Your task to perform on an android device: open app "Facebook Messenger" (install if not already installed) and go to login screen Image 0: 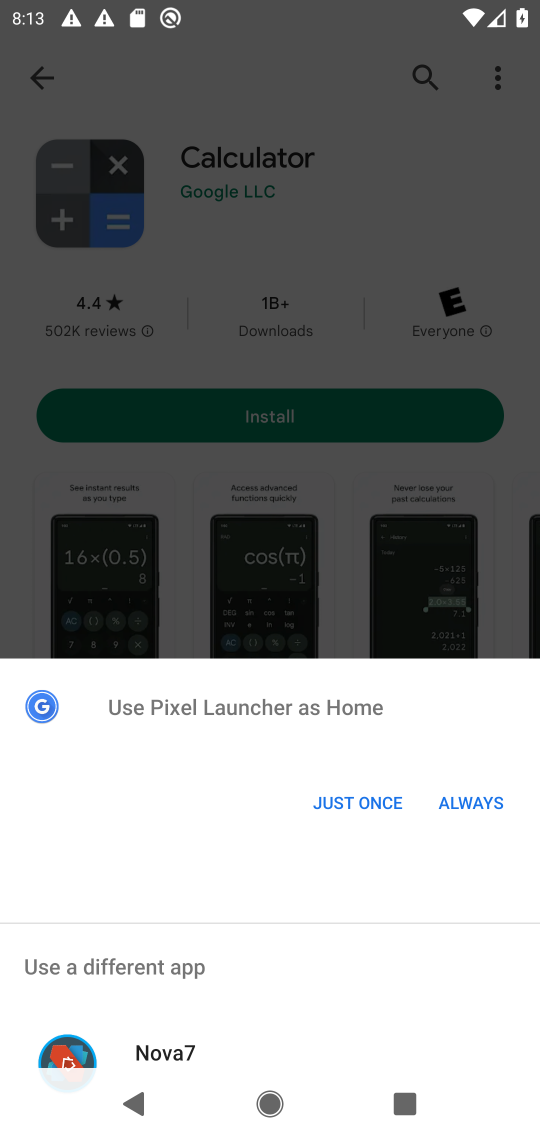
Step 0: click (354, 835)
Your task to perform on an android device: open app "Facebook Messenger" (install if not already installed) and go to login screen Image 1: 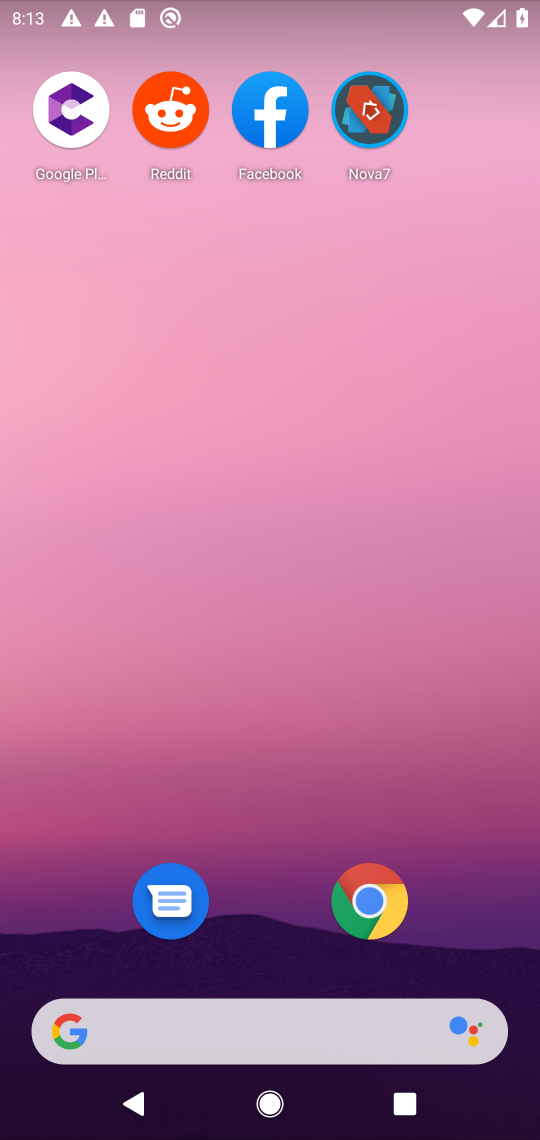
Step 1: drag from (281, 964) to (463, 47)
Your task to perform on an android device: open app "Facebook Messenger" (install if not already installed) and go to login screen Image 2: 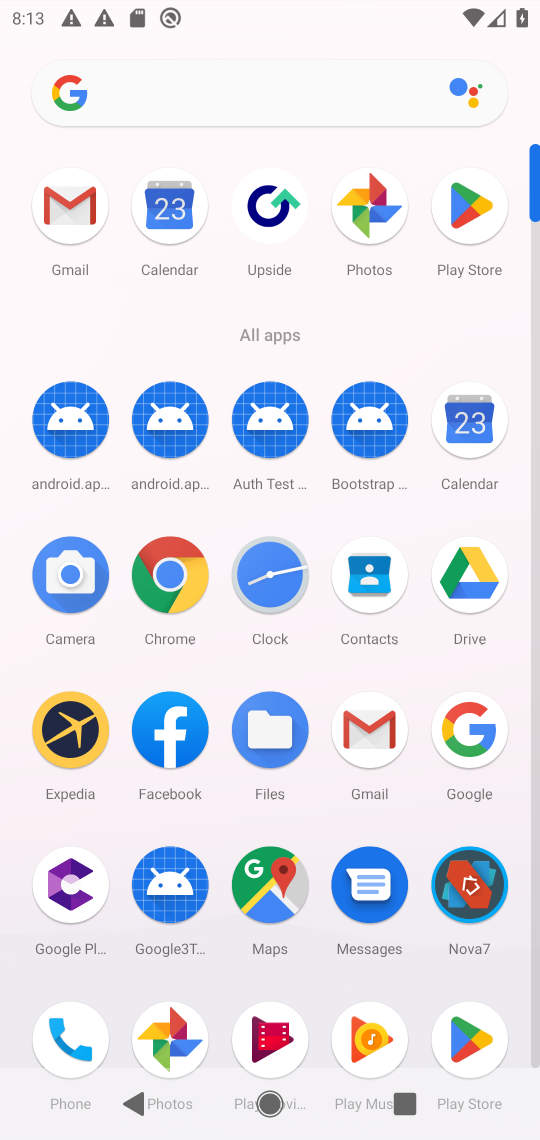
Step 2: click (497, 238)
Your task to perform on an android device: open app "Facebook Messenger" (install if not already installed) and go to login screen Image 3: 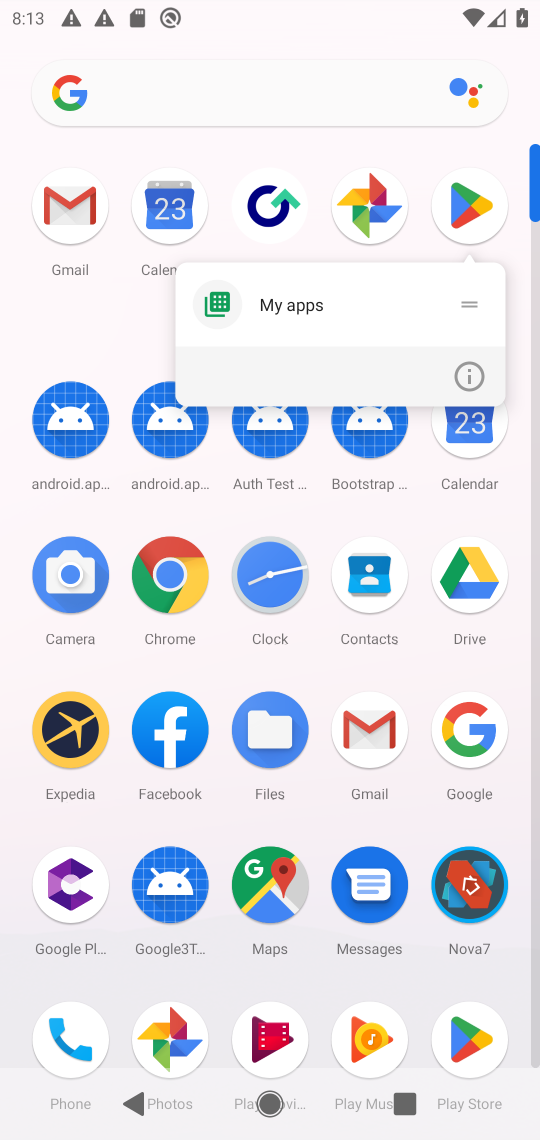
Step 3: click (494, 234)
Your task to perform on an android device: open app "Facebook Messenger" (install if not already installed) and go to login screen Image 4: 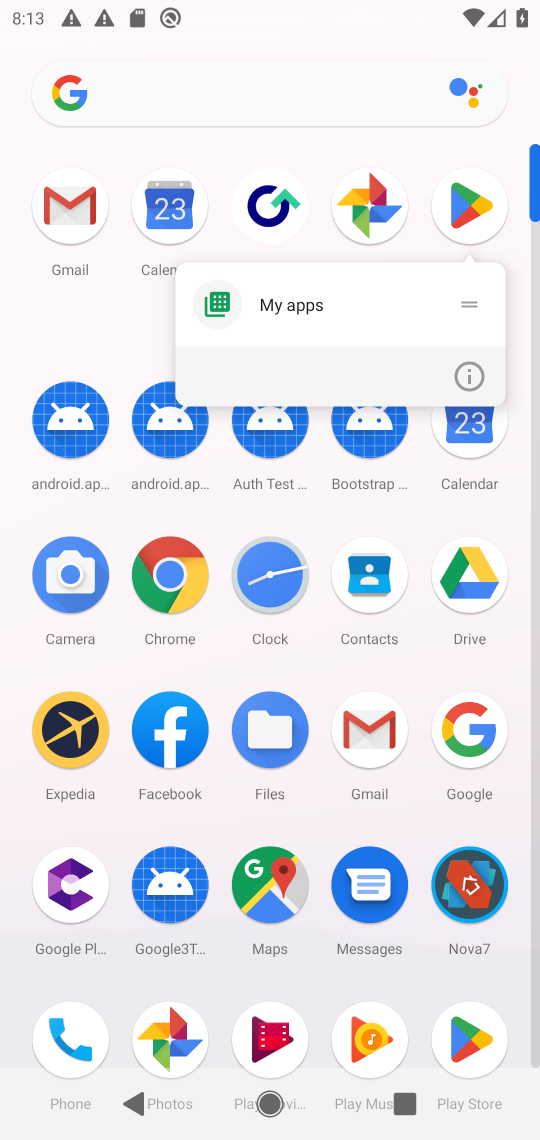
Step 4: click (422, 200)
Your task to perform on an android device: open app "Facebook Messenger" (install if not already installed) and go to login screen Image 5: 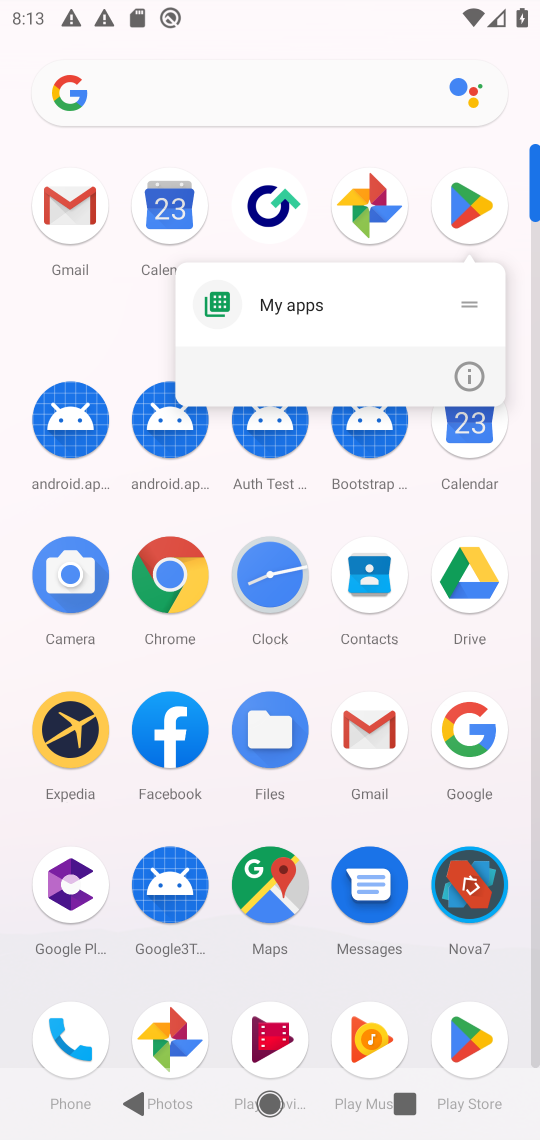
Step 5: click (464, 228)
Your task to perform on an android device: open app "Facebook Messenger" (install if not already installed) and go to login screen Image 6: 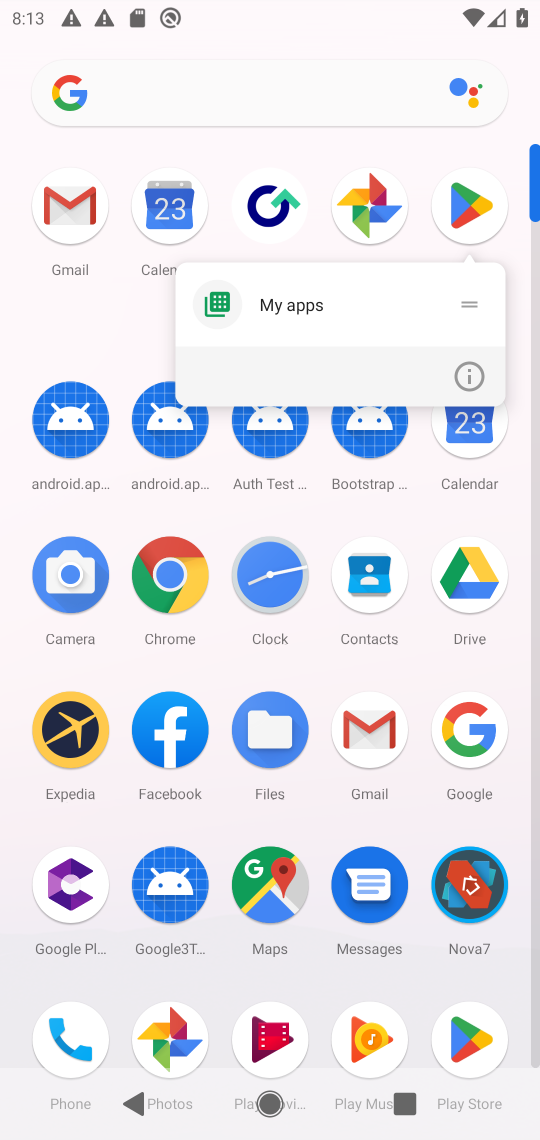
Step 6: click (461, 217)
Your task to perform on an android device: open app "Facebook Messenger" (install if not already installed) and go to login screen Image 7: 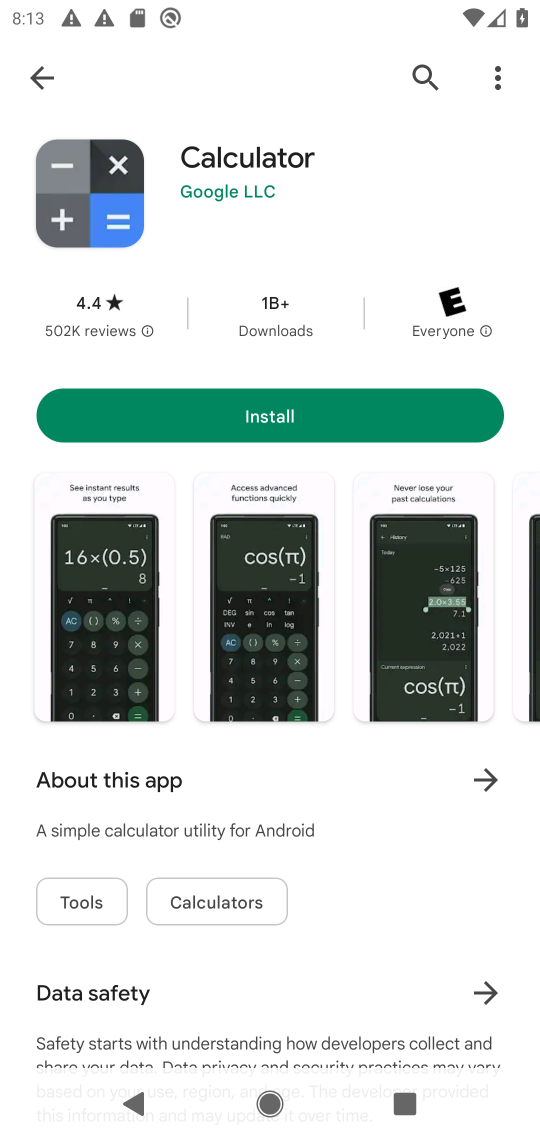
Step 7: press back button
Your task to perform on an android device: open app "Facebook Messenger" (install if not already installed) and go to login screen Image 8: 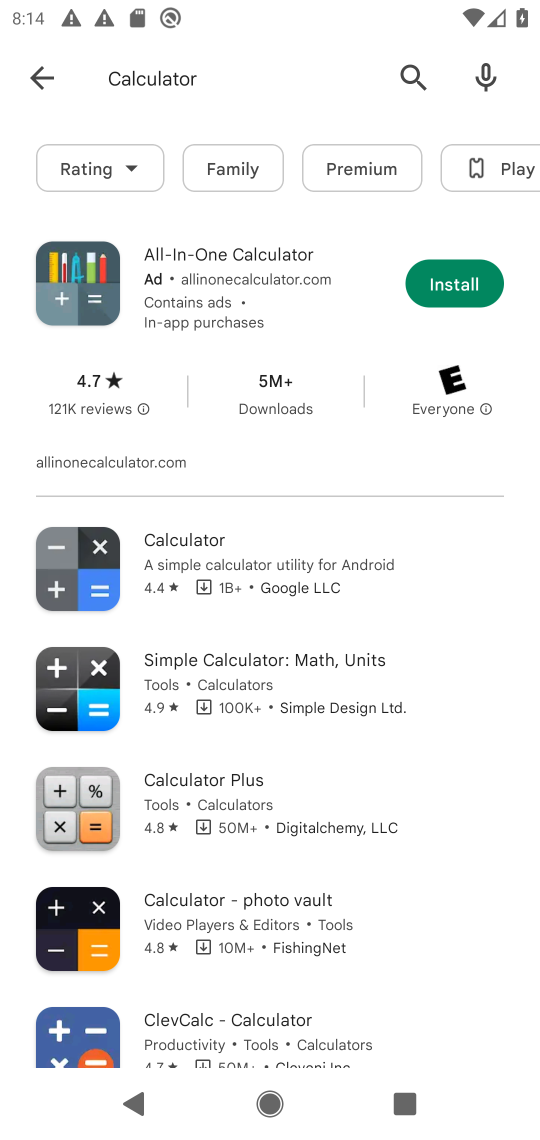
Step 8: press back button
Your task to perform on an android device: open app "Facebook Messenger" (install if not already installed) and go to login screen Image 9: 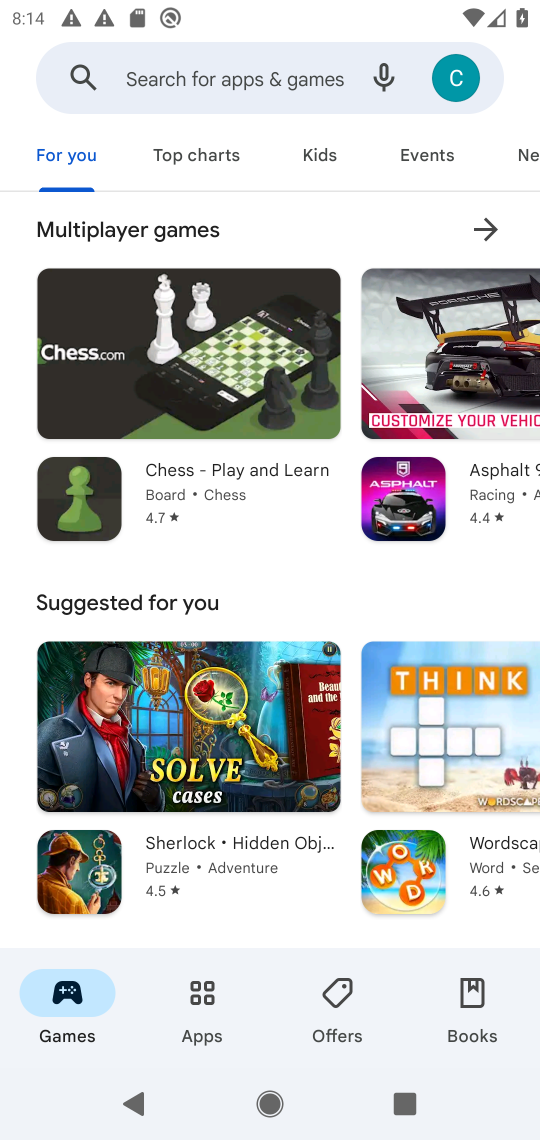
Step 9: click (247, 80)
Your task to perform on an android device: open app "Facebook Messenger" (install if not already installed) and go to login screen Image 10: 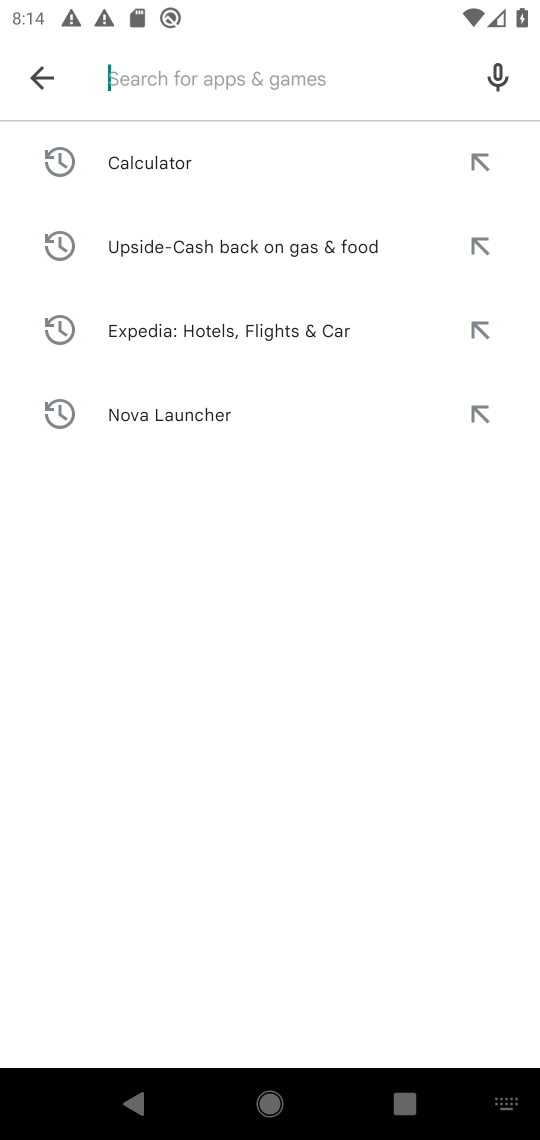
Step 10: type "Facebook Messenger"
Your task to perform on an android device: open app "Facebook Messenger" (install if not already installed) and go to login screen Image 11: 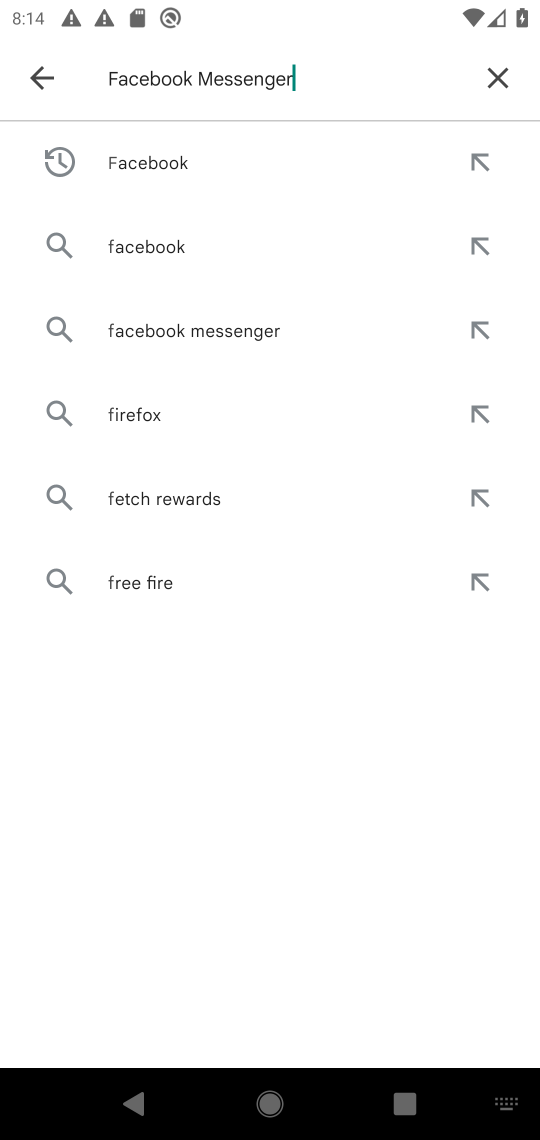
Step 11: press enter
Your task to perform on an android device: open app "Facebook Messenger" (install if not already installed) and go to login screen Image 12: 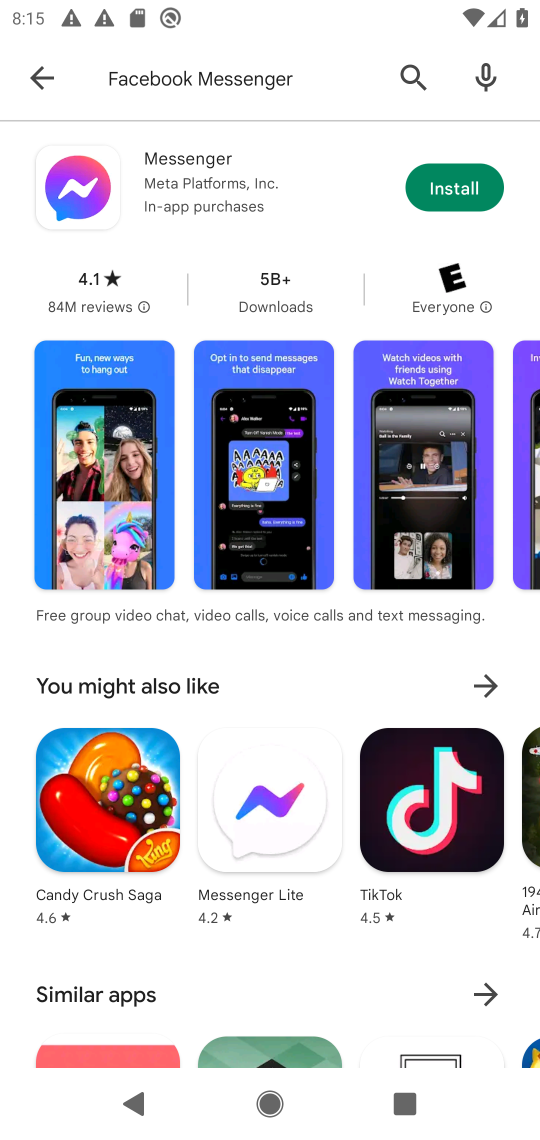
Step 12: click (430, 181)
Your task to perform on an android device: open app "Facebook Messenger" (install if not already installed) and go to login screen Image 13: 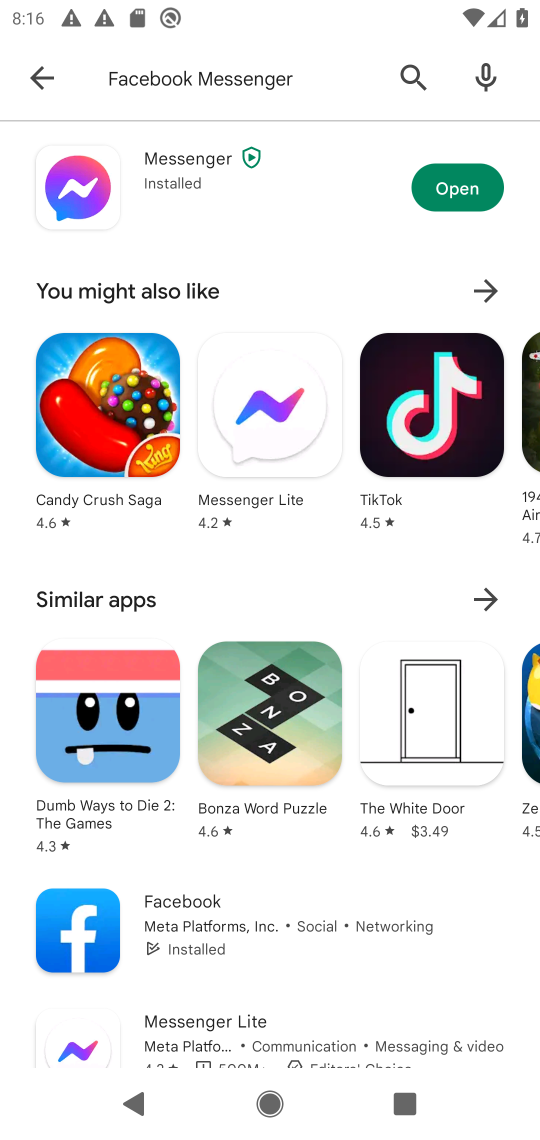
Step 13: click (463, 186)
Your task to perform on an android device: open app "Facebook Messenger" (install if not already installed) and go to login screen Image 14: 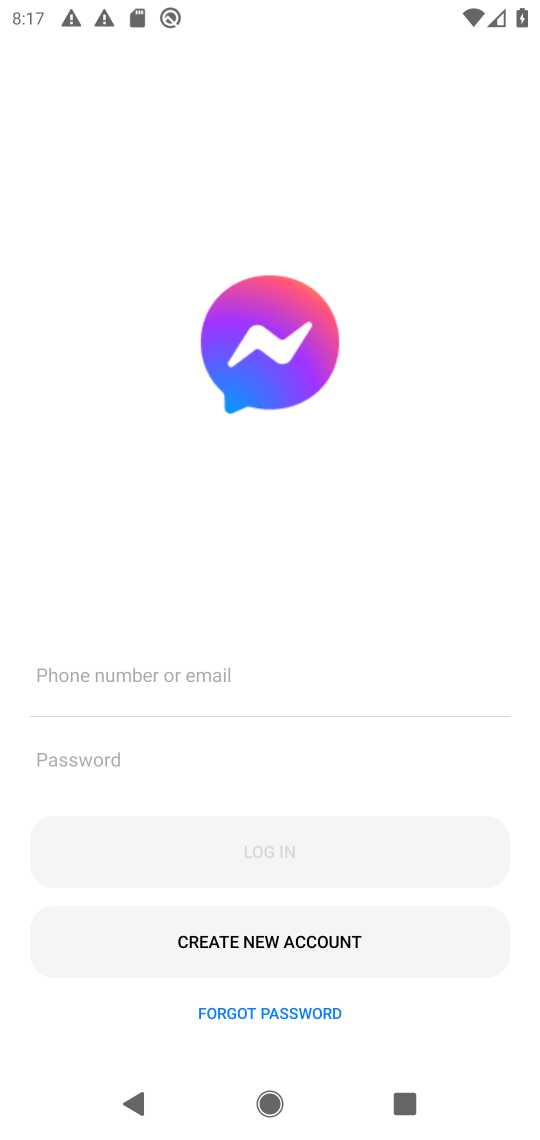
Step 14: task complete